Your task to perform on an android device: turn on data saver in the chrome app Image 0: 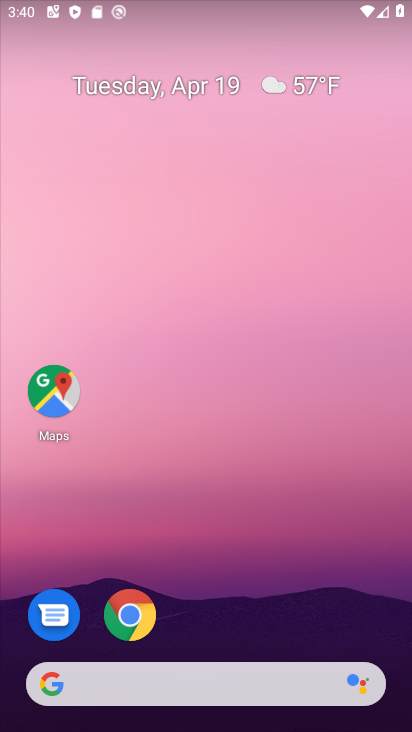
Step 0: click (129, 617)
Your task to perform on an android device: turn on data saver in the chrome app Image 1: 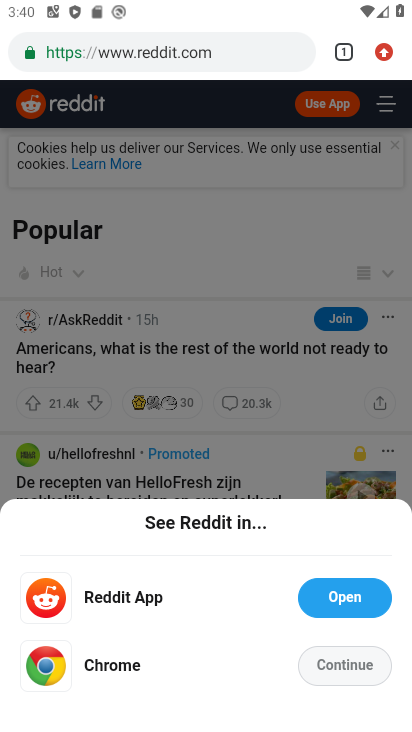
Step 1: drag from (388, 46) to (219, 659)
Your task to perform on an android device: turn on data saver in the chrome app Image 2: 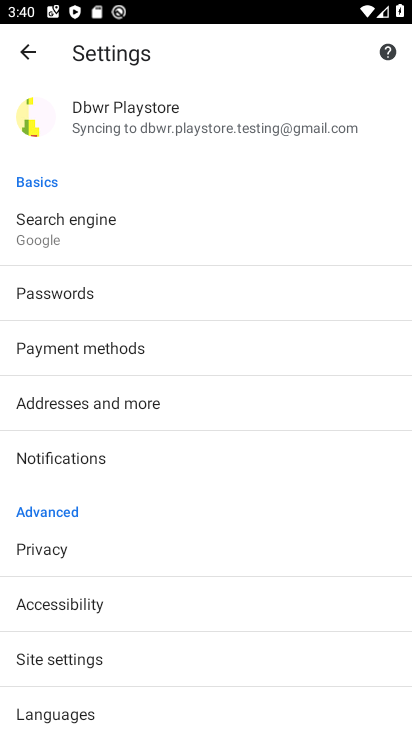
Step 2: drag from (103, 663) to (126, 518)
Your task to perform on an android device: turn on data saver in the chrome app Image 3: 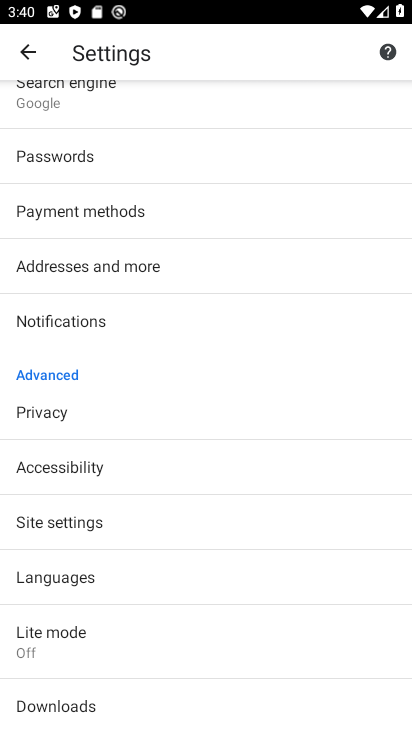
Step 3: click (73, 646)
Your task to perform on an android device: turn on data saver in the chrome app Image 4: 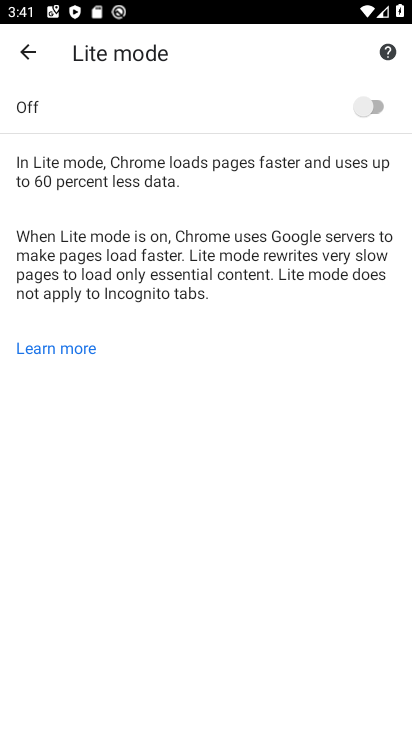
Step 4: click (381, 100)
Your task to perform on an android device: turn on data saver in the chrome app Image 5: 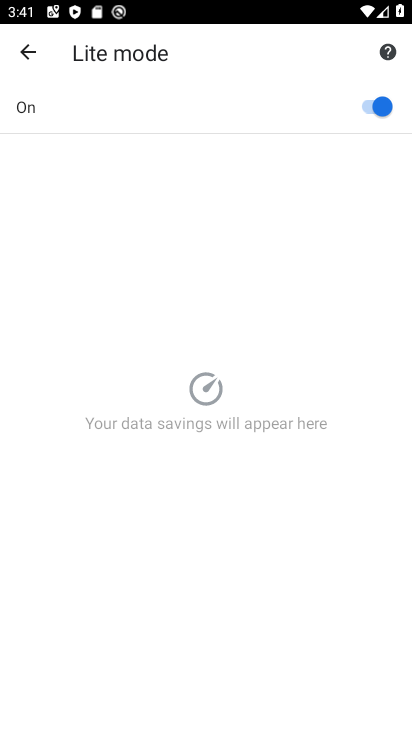
Step 5: task complete